Your task to perform on an android device: create a new album in the google photos Image 0: 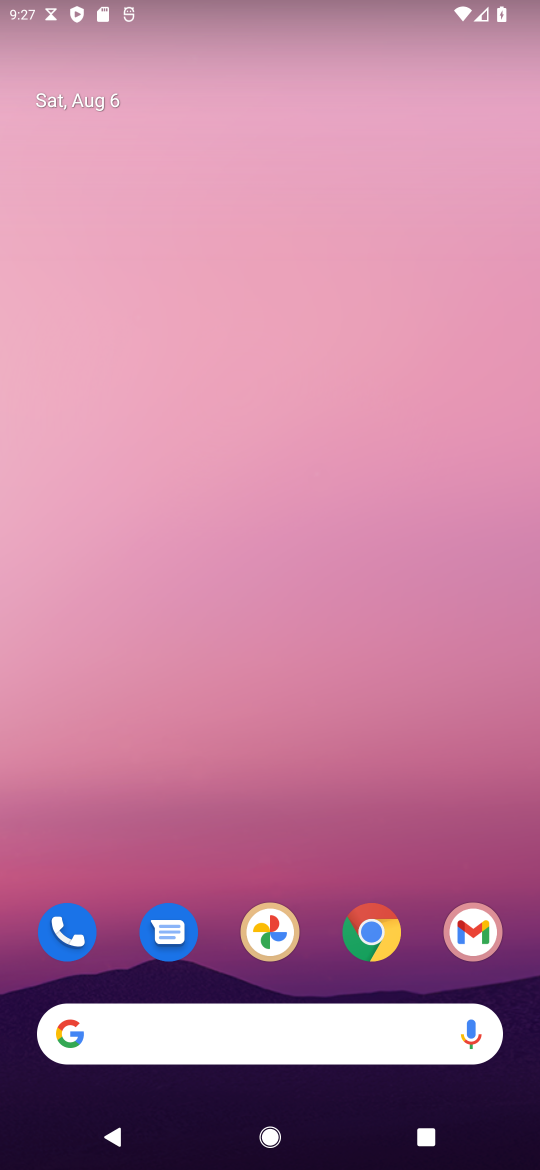
Step 0: drag from (208, 1039) to (317, 326)
Your task to perform on an android device: create a new album in the google photos Image 1: 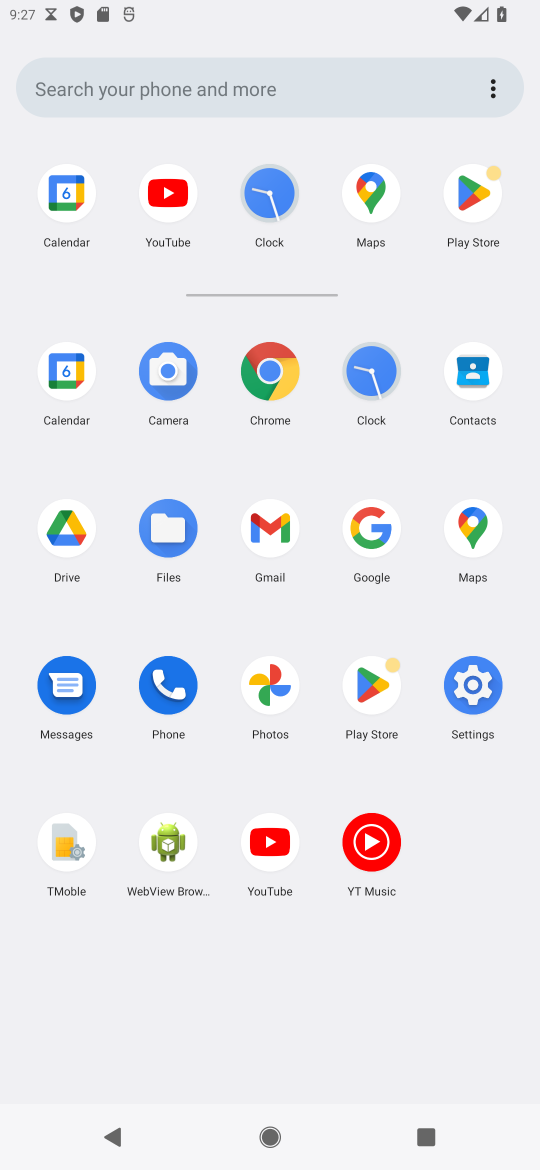
Step 1: click (272, 686)
Your task to perform on an android device: create a new album in the google photos Image 2: 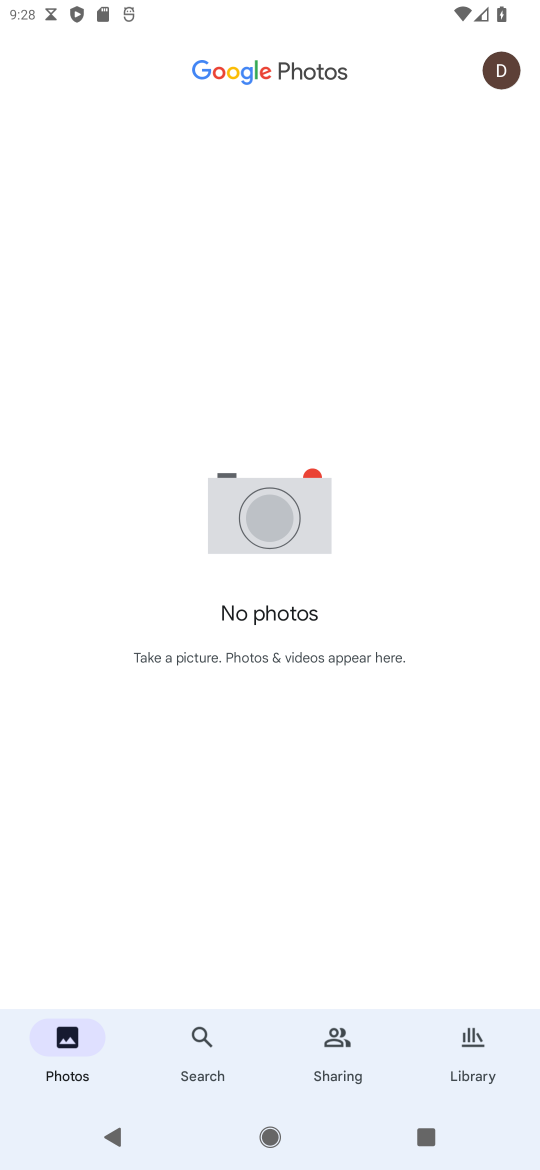
Step 2: click (499, 73)
Your task to perform on an android device: create a new album in the google photos Image 3: 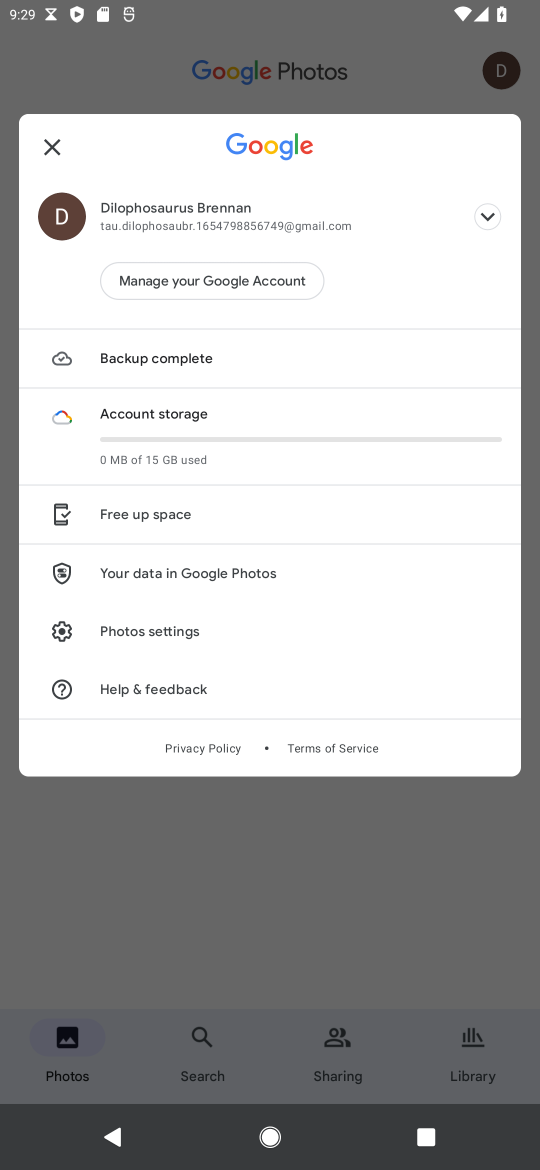
Step 3: click (160, 633)
Your task to perform on an android device: create a new album in the google photos Image 4: 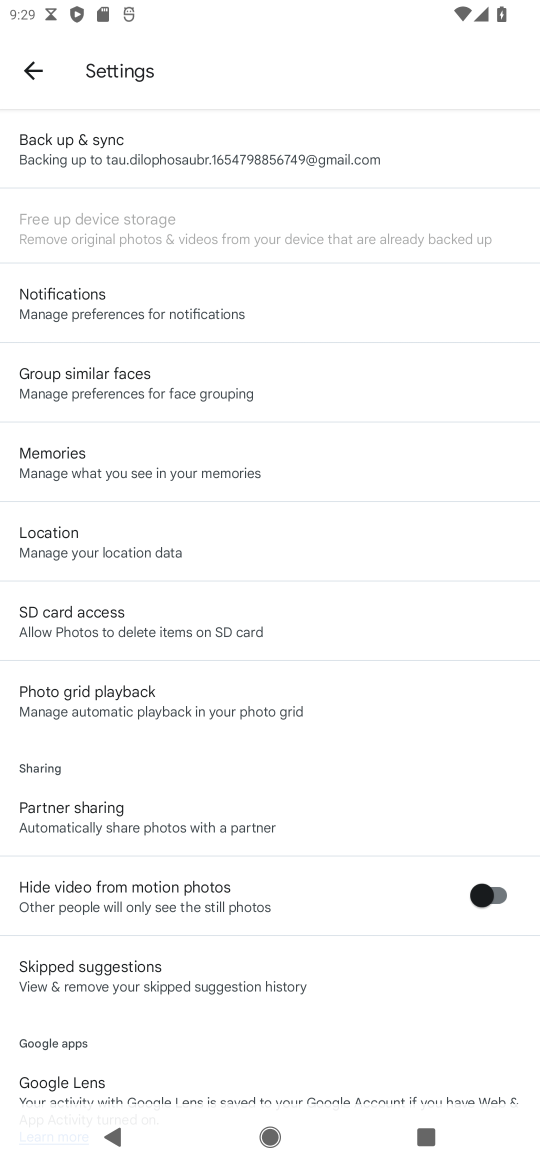
Step 4: press back button
Your task to perform on an android device: create a new album in the google photos Image 5: 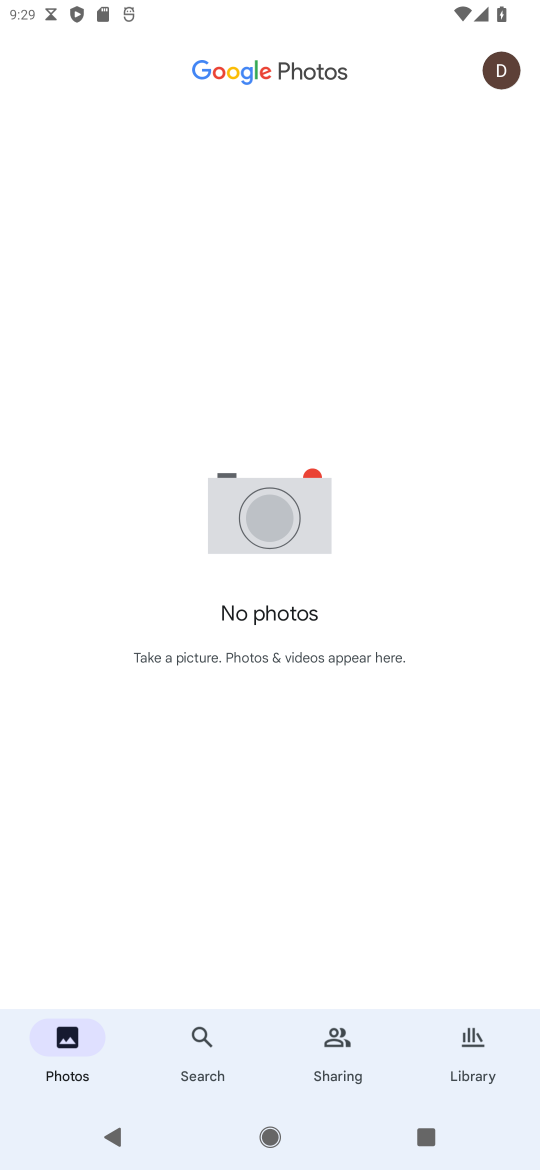
Step 5: click (500, 75)
Your task to perform on an android device: create a new album in the google photos Image 6: 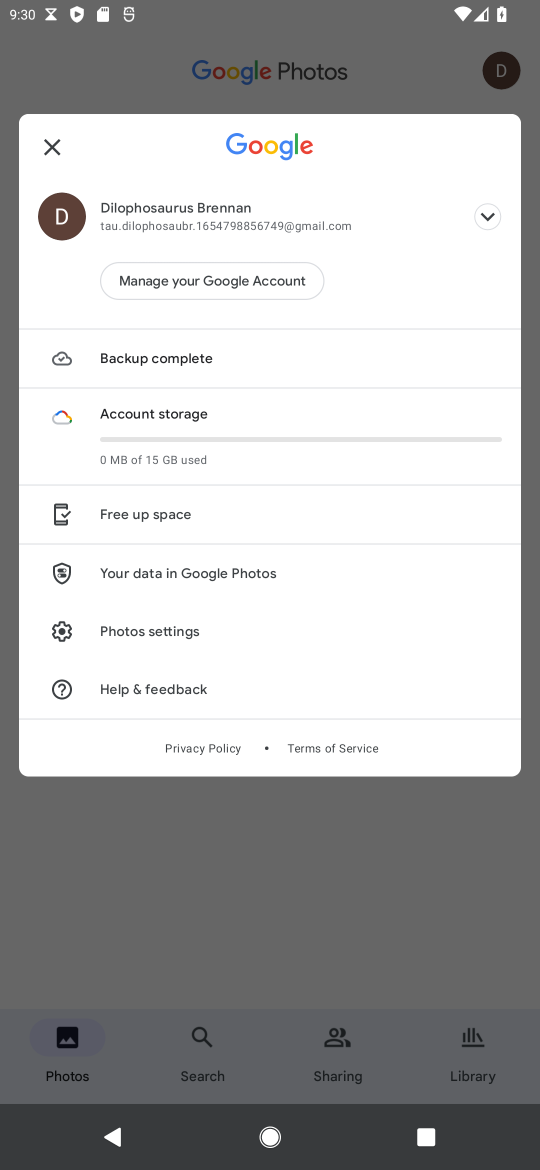
Step 6: click (58, 139)
Your task to perform on an android device: create a new album in the google photos Image 7: 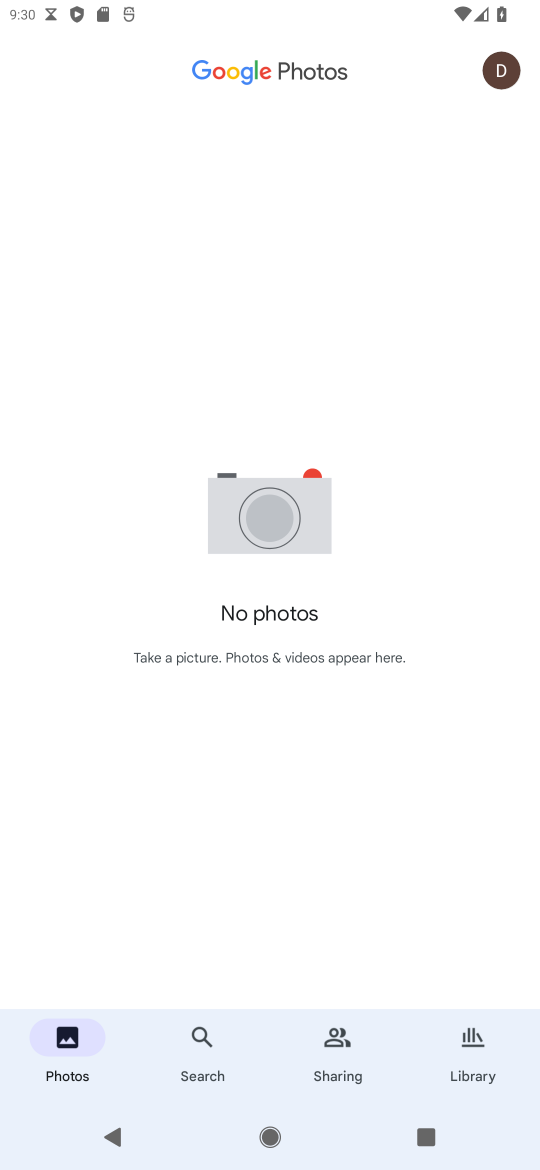
Step 7: click (201, 1026)
Your task to perform on an android device: create a new album in the google photos Image 8: 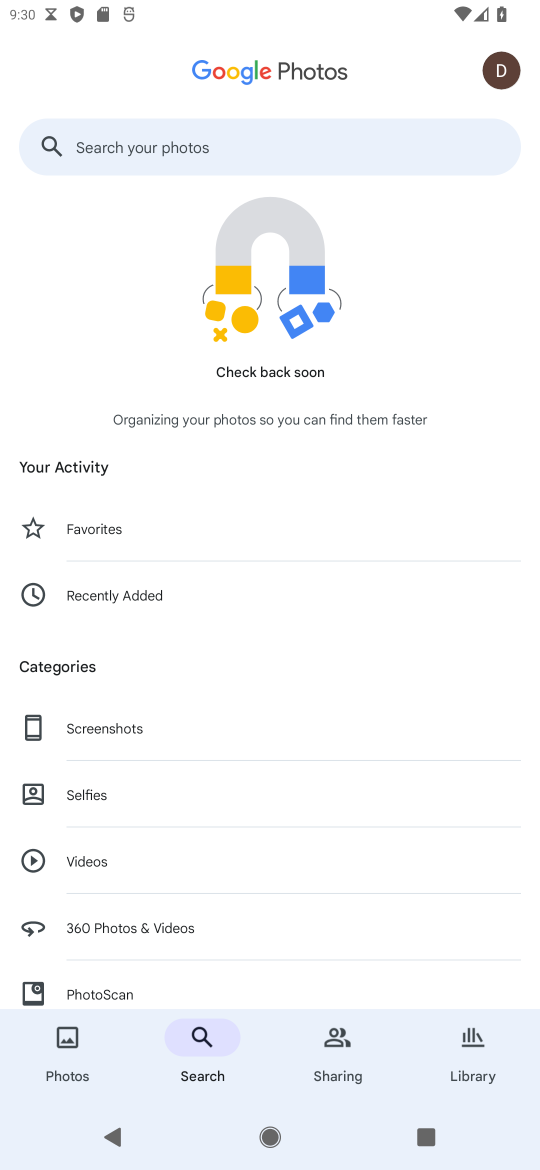
Step 8: drag from (203, 929) to (181, 721)
Your task to perform on an android device: create a new album in the google photos Image 9: 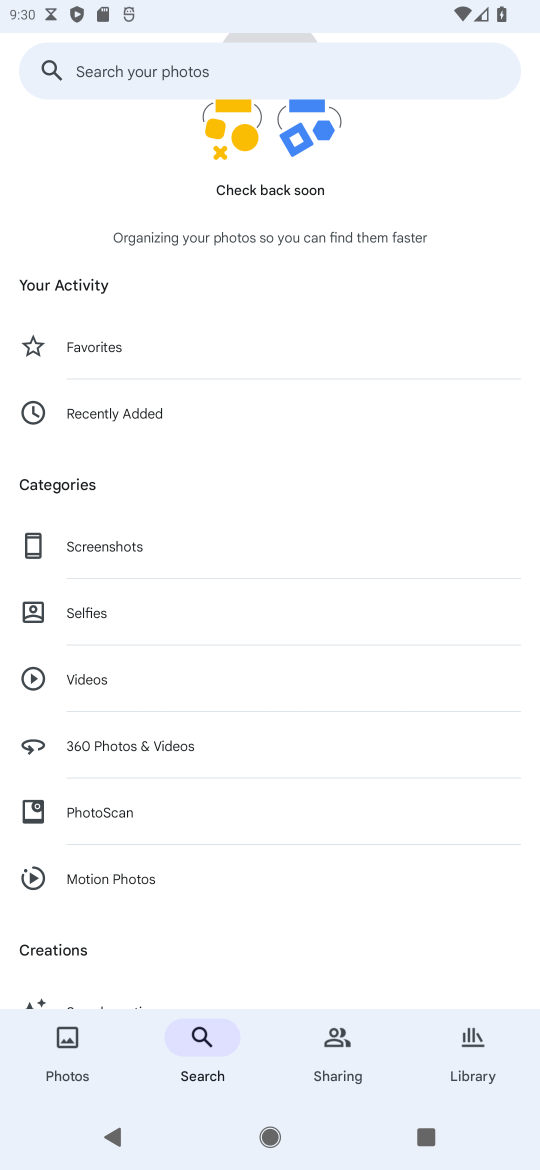
Step 9: drag from (179, 850) to (253, 723)
Your task to perform on an android device: create a new album in the google photos Image 10: 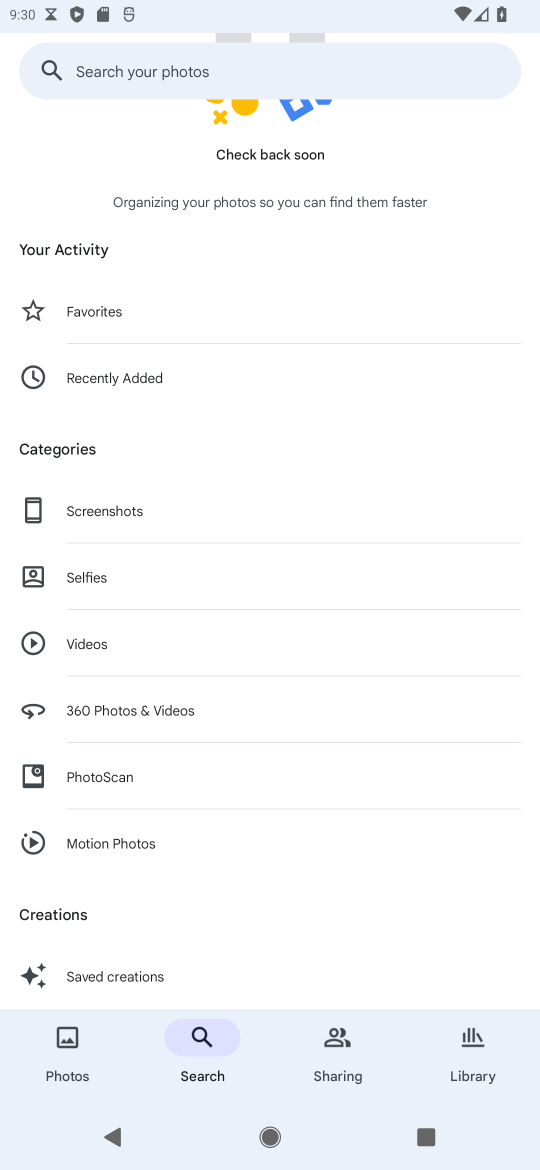
Step 10: drag from (142, 329) to (166, 856)
Your task to perform on an android device: create a new album in the google photos Image 11: 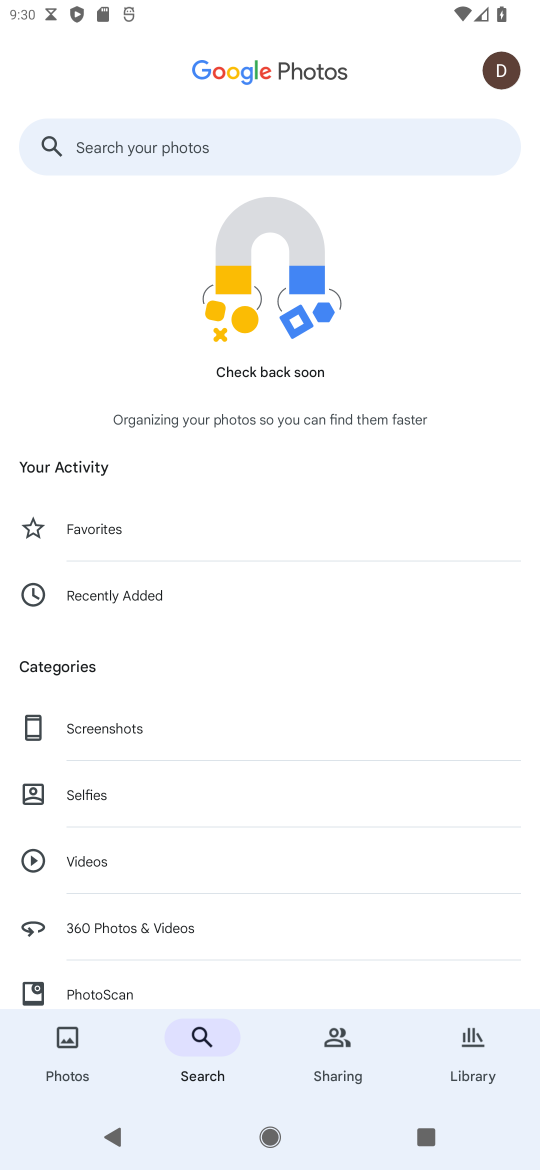
Step 11: click (488, 1047)
Your task to perform on an android device: create a new album in the google photos Image 12: 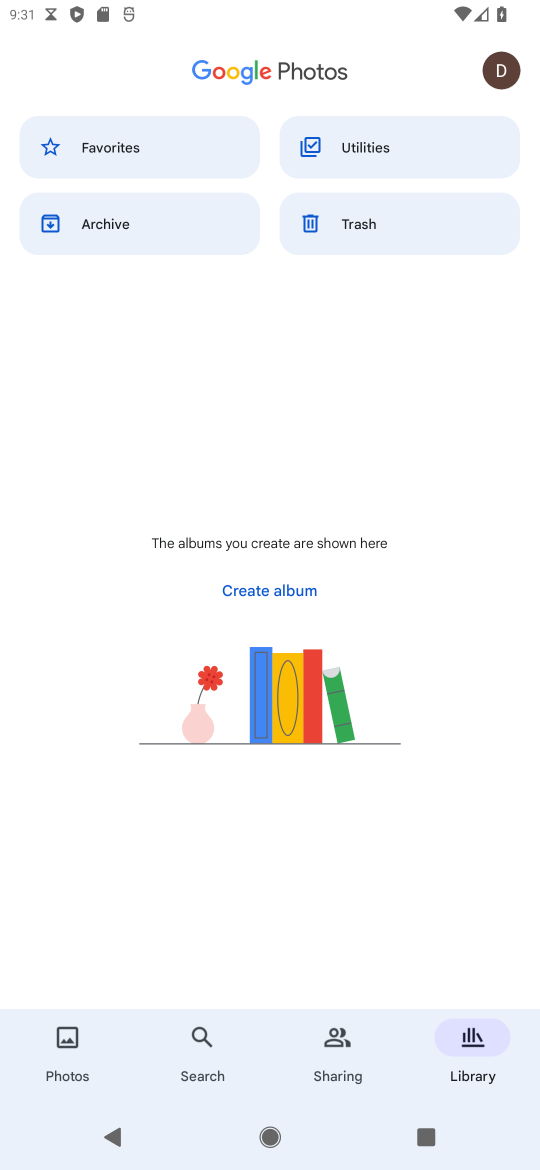
Step 12: click (499, 78)
Your task to perform on an android device: create a new album in the google photos Image 13: 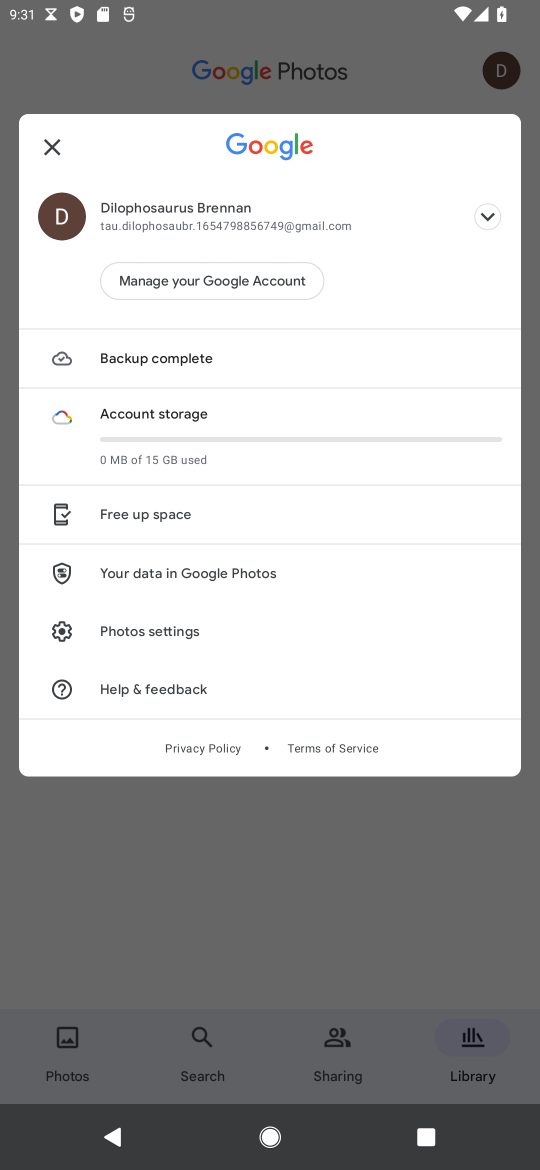
Step 13: click (194, 641)
Your task to perform on an android device: create a new album in the google photos Image 14: 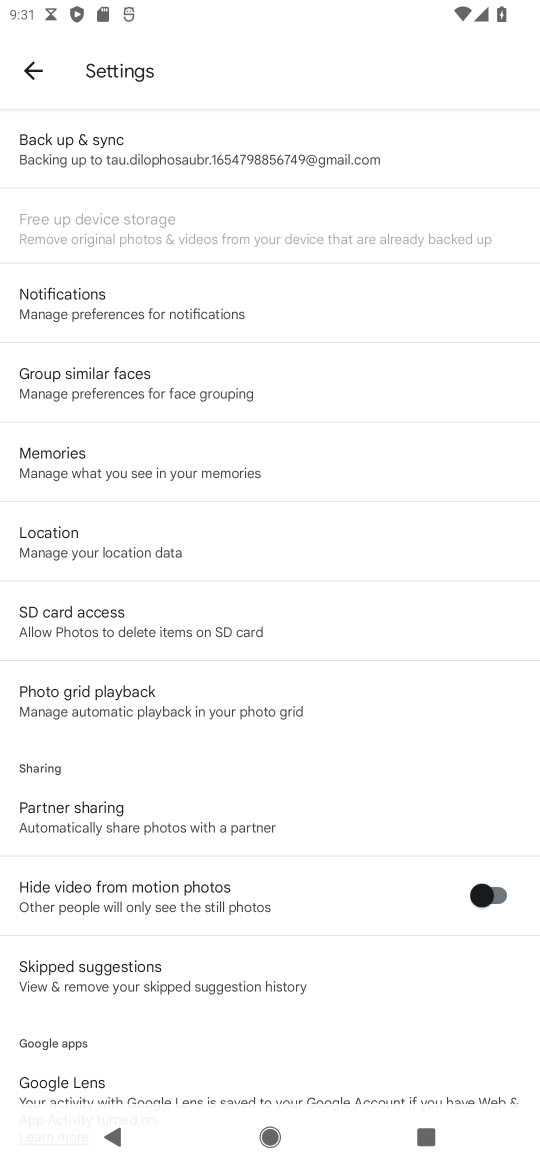
Step 14: press back button
Your task to perform on an android device: create a new album in the google photos Image 15: 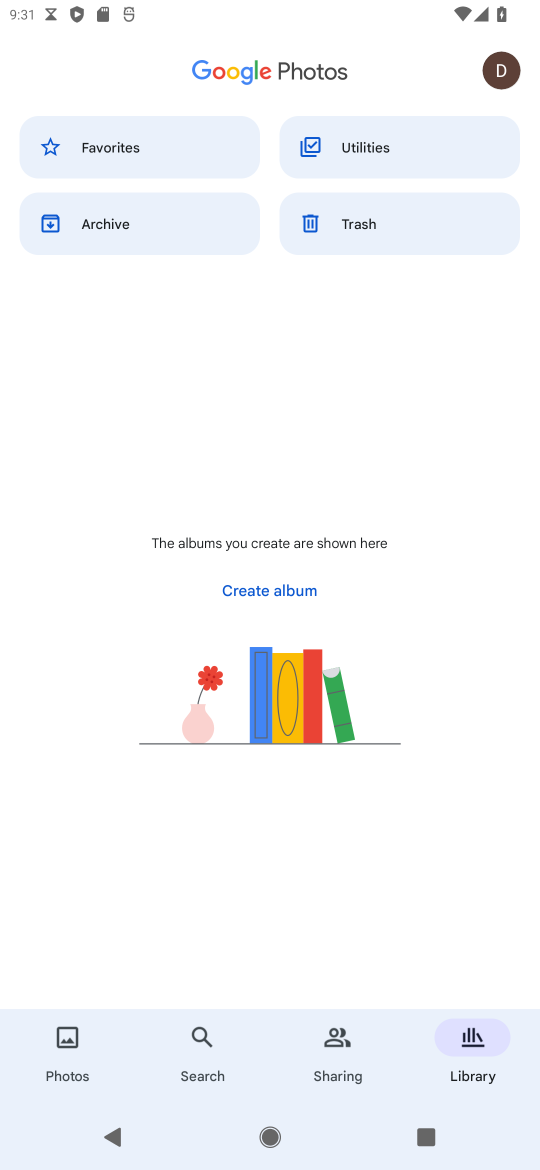
Step 15: click (355, 223)
Your task to perform on an android device: create a new album in the google photos Image 16: 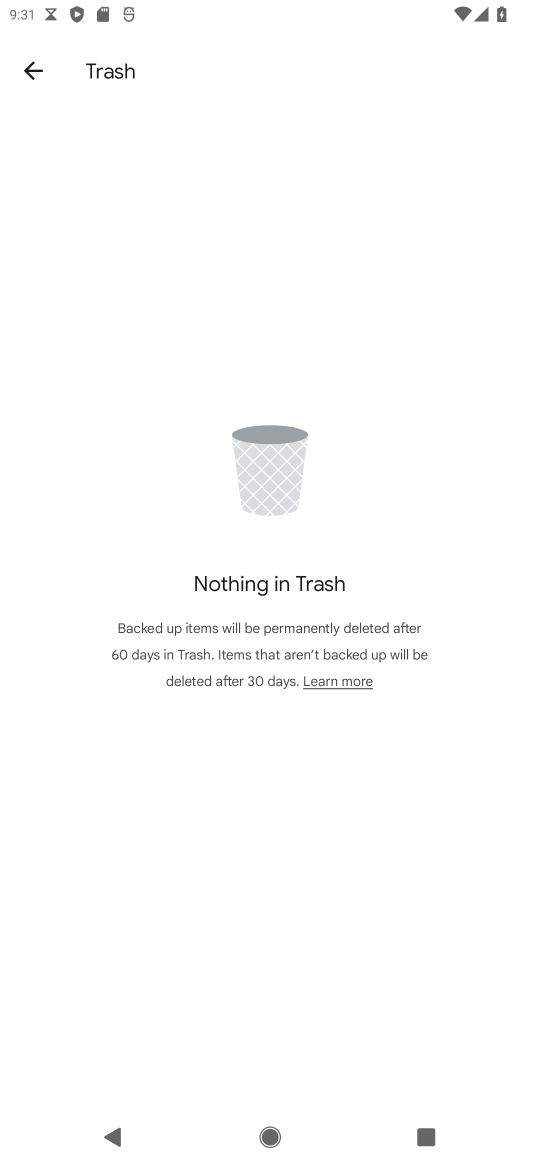
Step 16: press back button
Your task to perform on an android device: create a new album in the google photos Image 17: 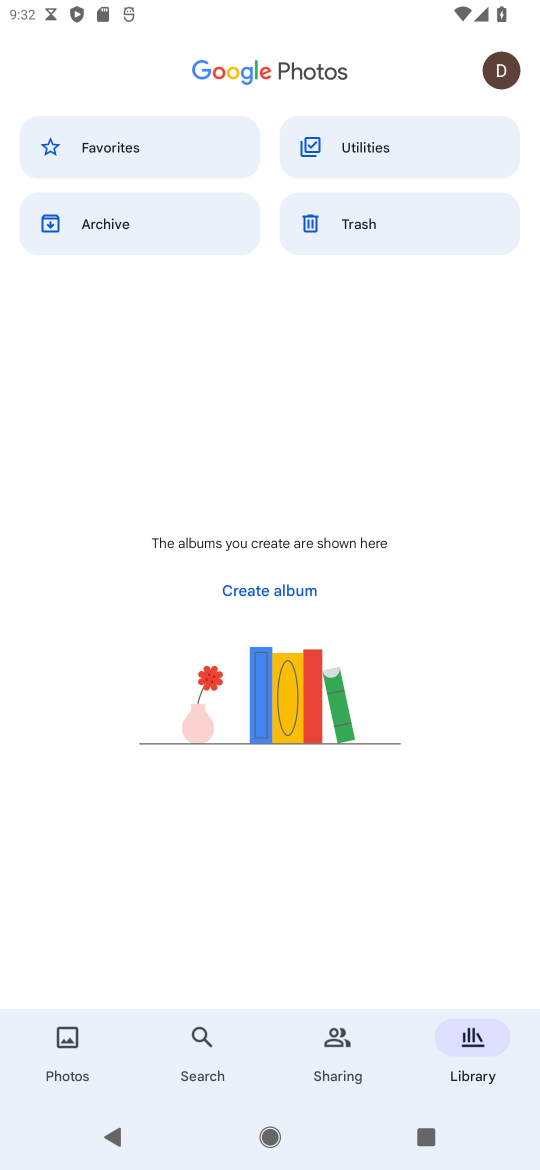
Step 17: click (368, 147)
Your task to perform on an android device: create a new album in the google photos Image 18: 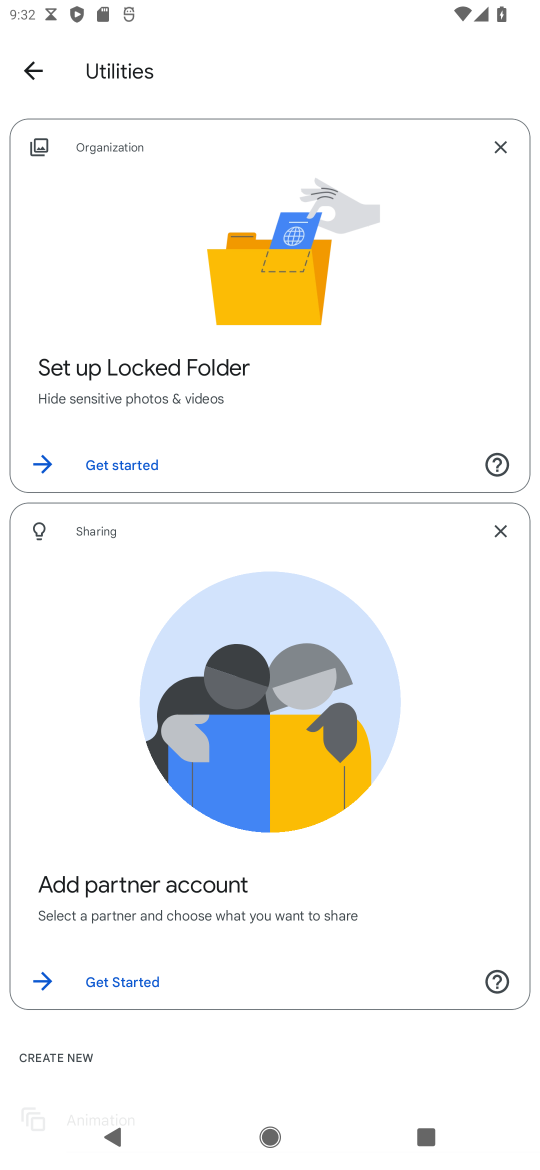
Step 18: drag from (146, 1042) to (321, 608)
Your task to perform on an android device: create a new album in the google photos Image 19: 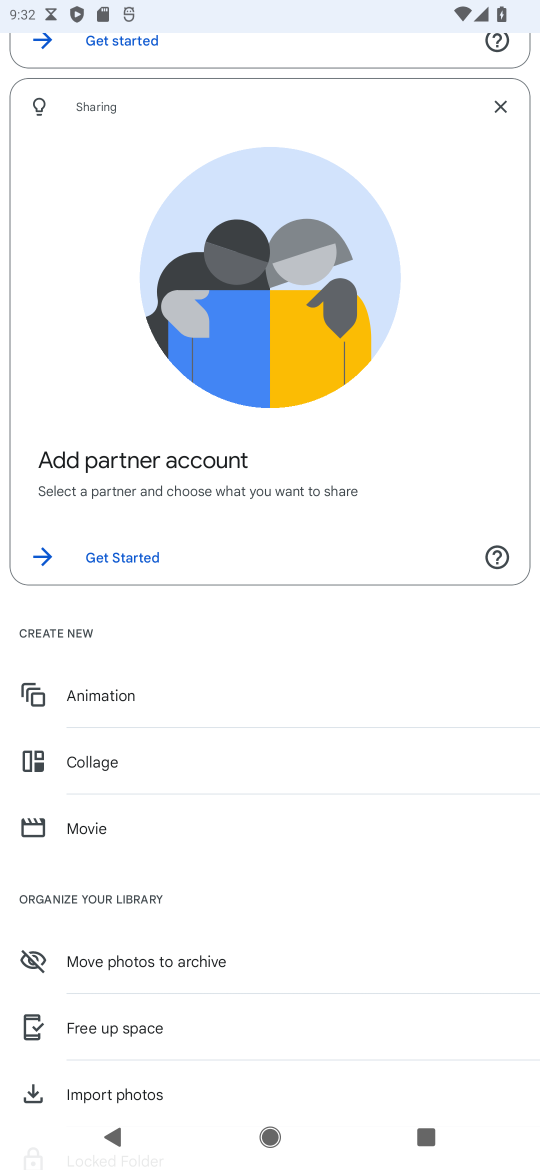
Step 19: drag from (164, 1043) to (246, 600)
Your task to perform on an android device: create a new album in the google photos Image 20: 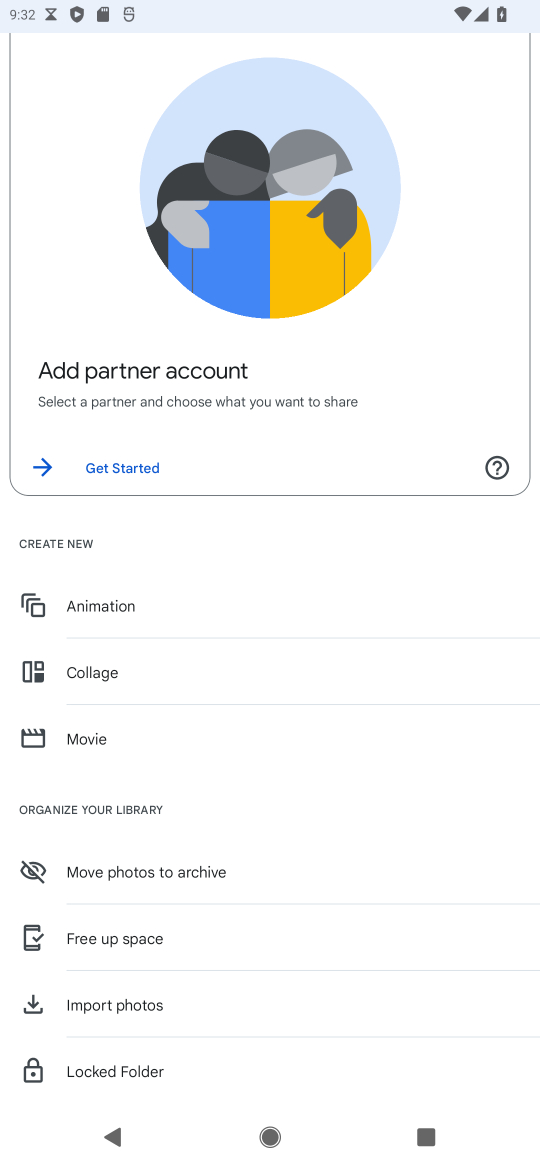
Step 20: press back button
Your task to perform on an android device: create a new album in the google photos Image 21: 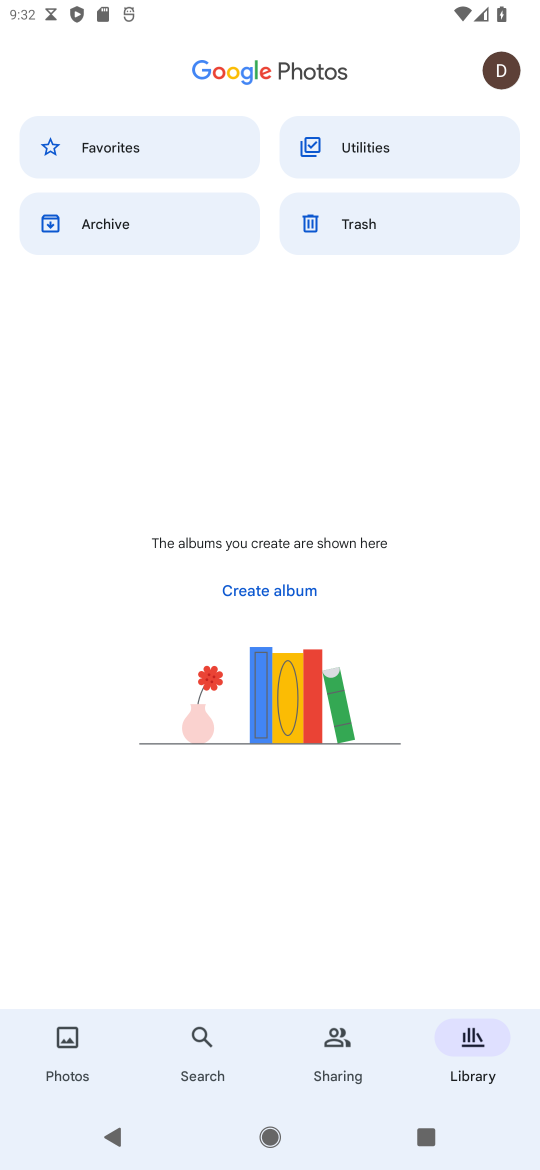
Step 21: click (332, 1048)
Your task to perform on an android device: create a new album in the google photos Image 22: 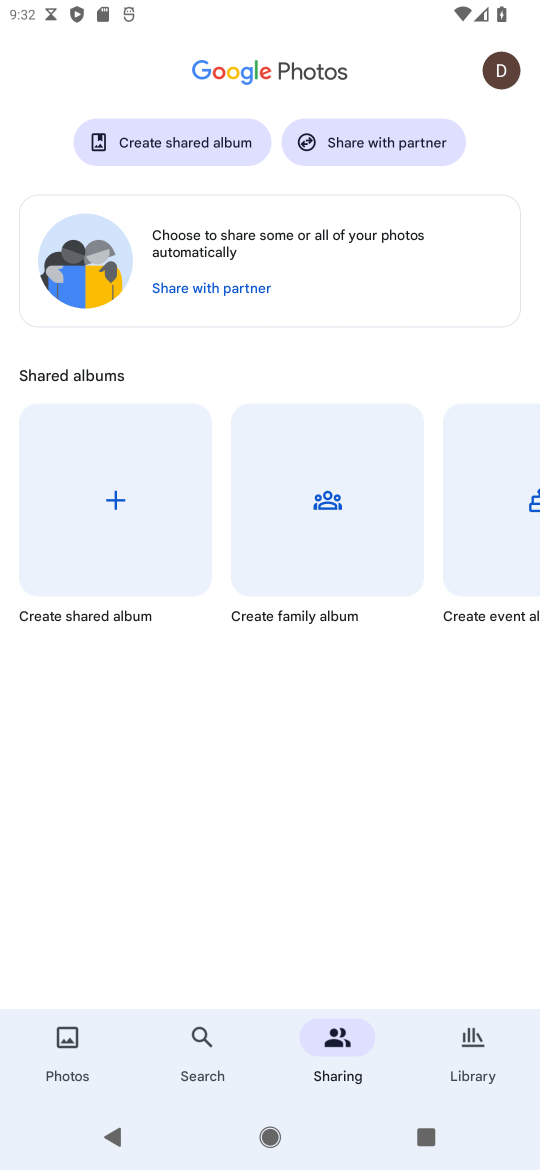
Step 22: click (192, 1035)
Your task to perform on an android device: create a new album in the google photos Image 23: 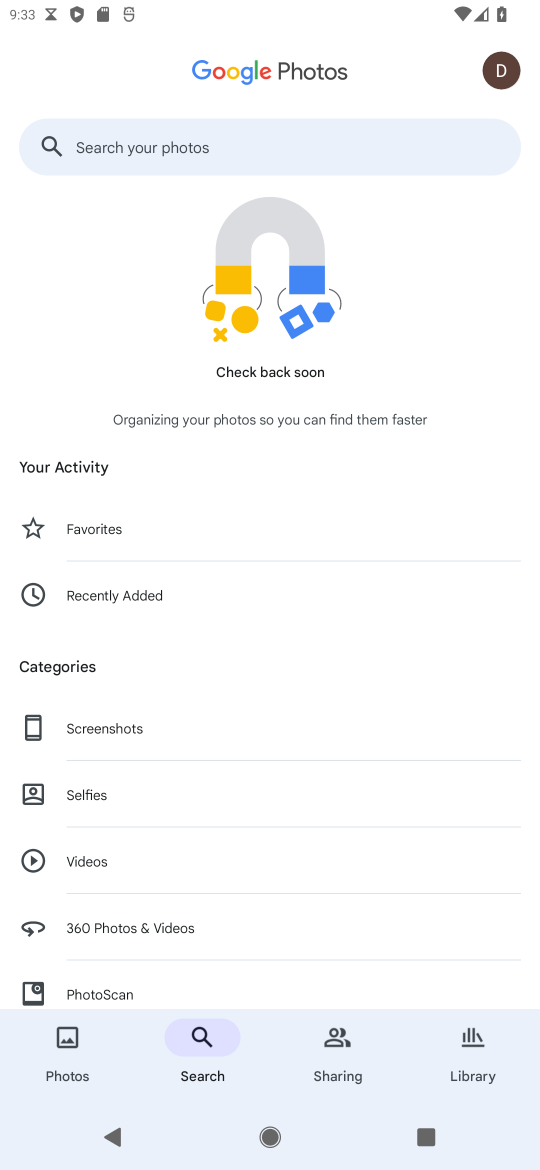
Step 23: click (68, 1062)
Your task to perform on an android device: create a new album in the google photos Image 24: 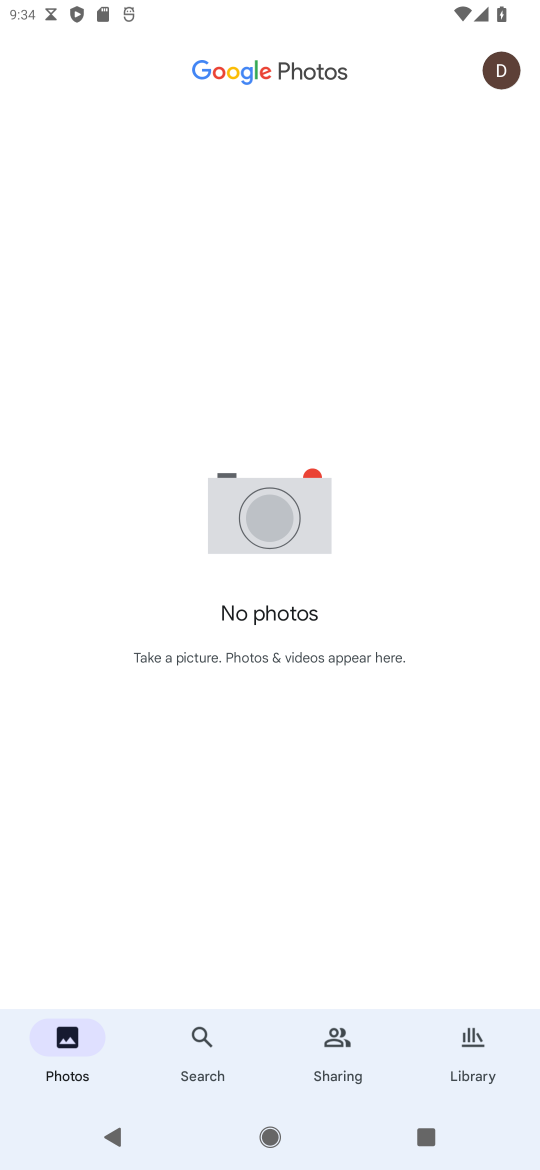
Step 24: task complete